Your task to perform on an android device: Search for pizza restaurants on Maps Image 0: 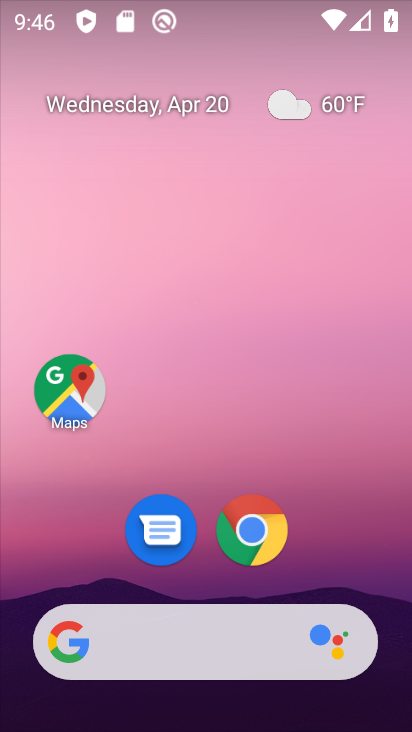
Step 0: click (72, 377)
Your task to perform on an android device: Search for pizza restaurants on Maps Image 1: 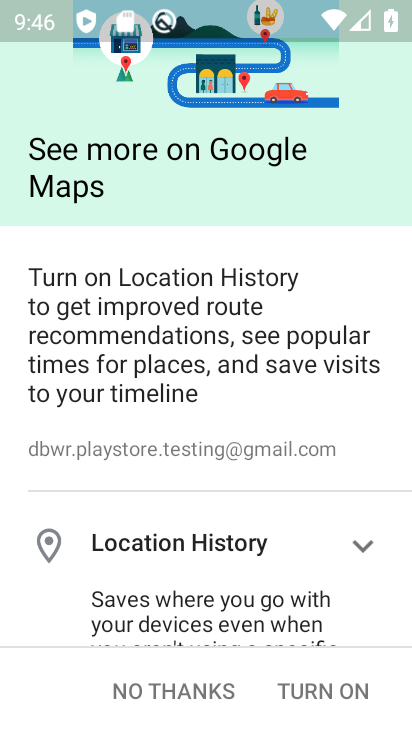
Step 1: click (172, 682)
Your task to perform on an android device: Search for pizza restaurants on Maps Image 2: 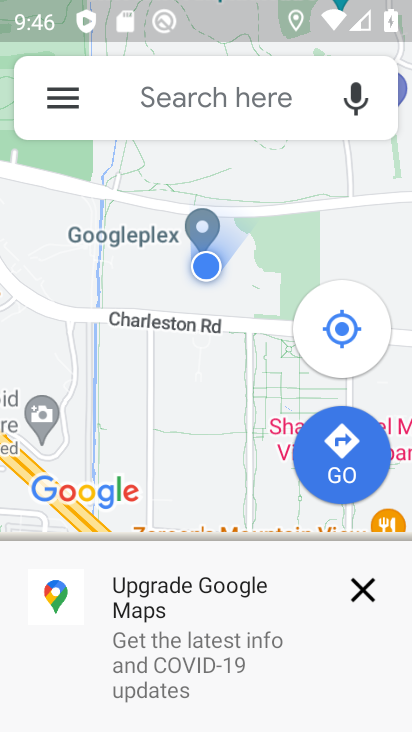
Step 2: click (233, 96)
Your task to perform on an android device: Search for pizza restaurants on Maps Image 3: 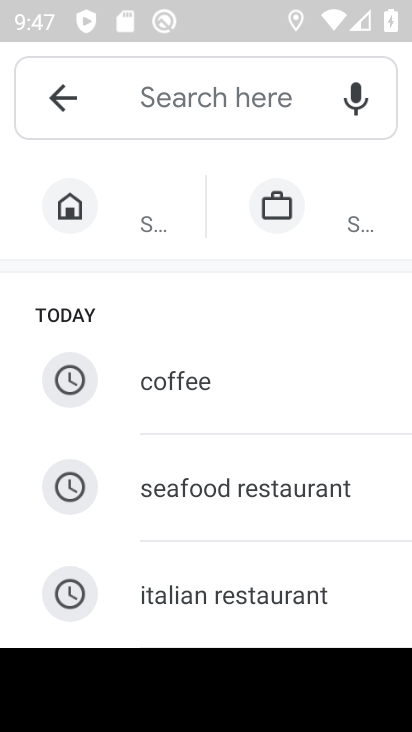
Step 3: type "pizza"
Your task to perform on an android device: Search for pizza restaurants on Maps Image 4: 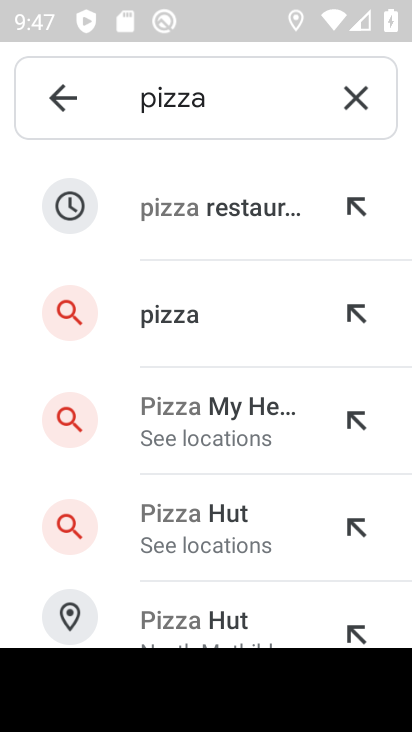
Step 4: click (229, 208)
Your task to perform on an android device: Search for pizza restaurants on Maps Image 5: 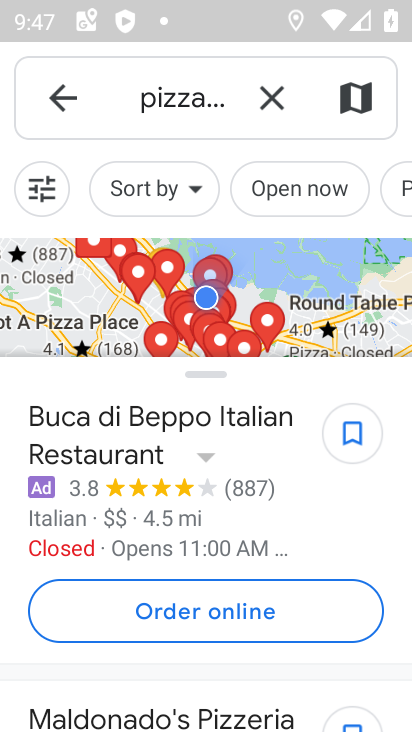
Step 5: task complete